Your task to perform on an android device: Open my contact list Image 0: 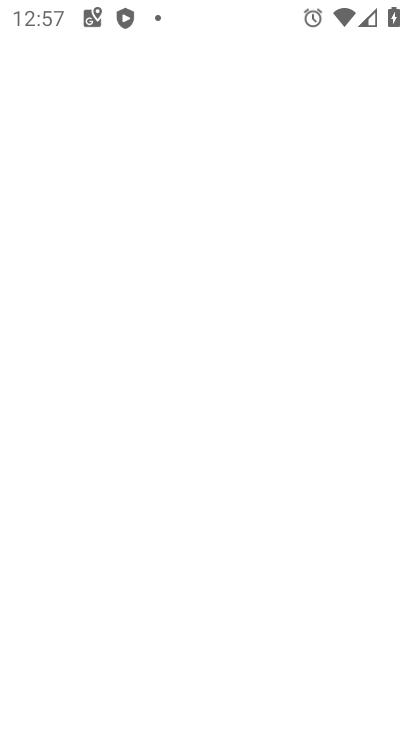
Step 0: press back button
Your task to perform on an android device: Open my contact list Image 1: 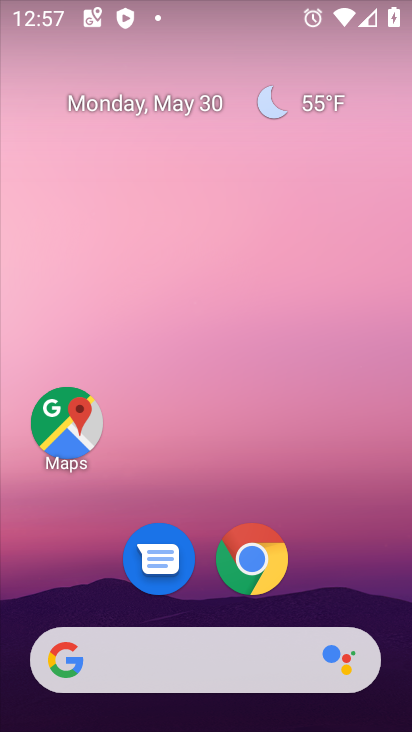
Step 1: drag from (120, 538) to (210, 50)
Your task to perform on an android device: Open my contact list Image 2: 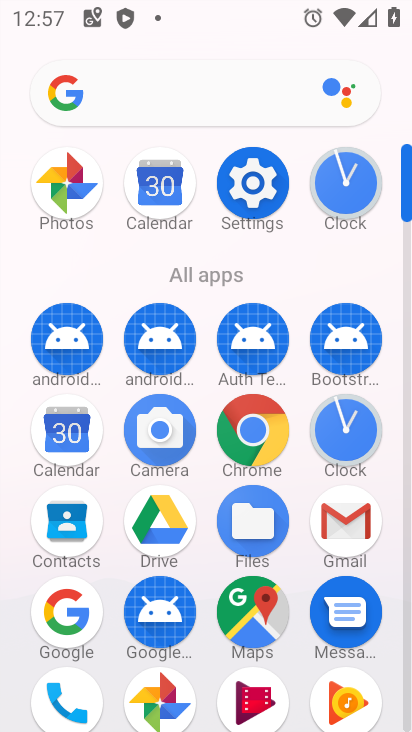
Step 2: click (76, 518)
Your task to perform on an android device: Open my contact list Image 3: 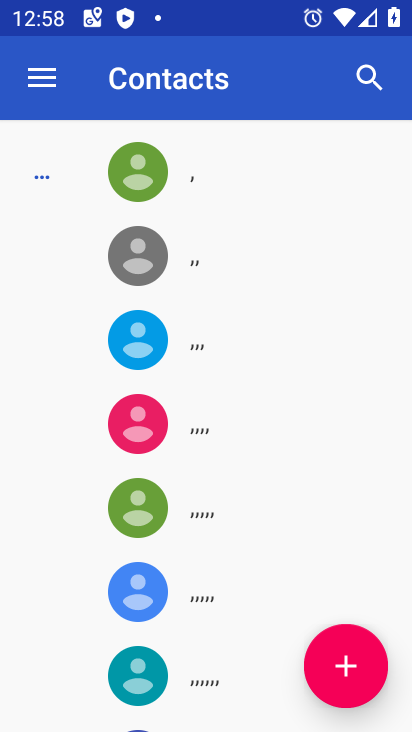
Step 3: task complete